Your task to perform on an android device: change notification settings in the gmail app Image 0: 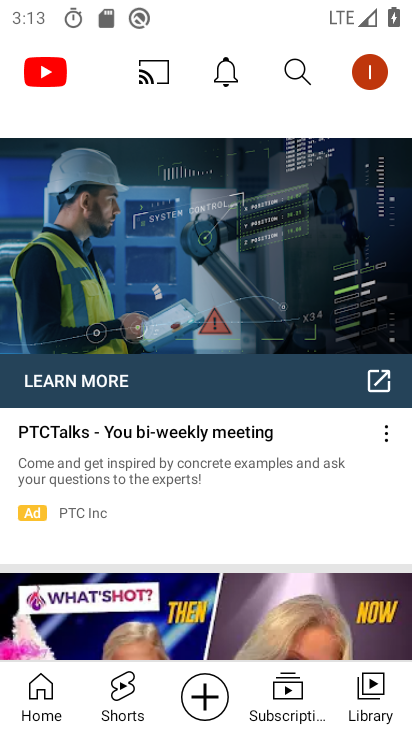
Step 0: press home button
Your task to perform on an android device: change notification settings in the gmail app Image 1: 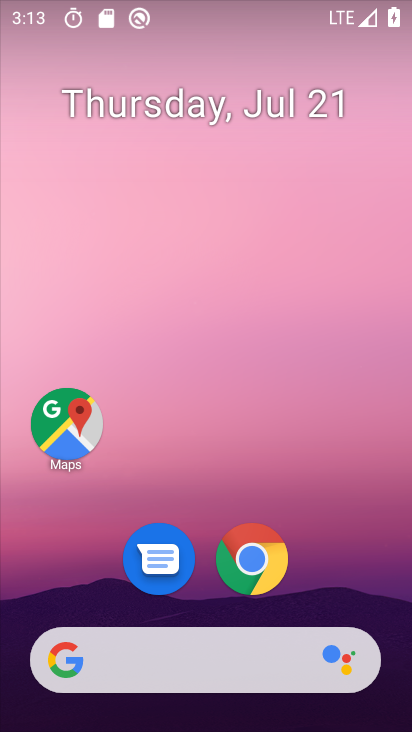
Step 1: drag from (370, 583) to (378, 66)
Your task to perform on an android device: change notification settings in the gmail app Image 2: 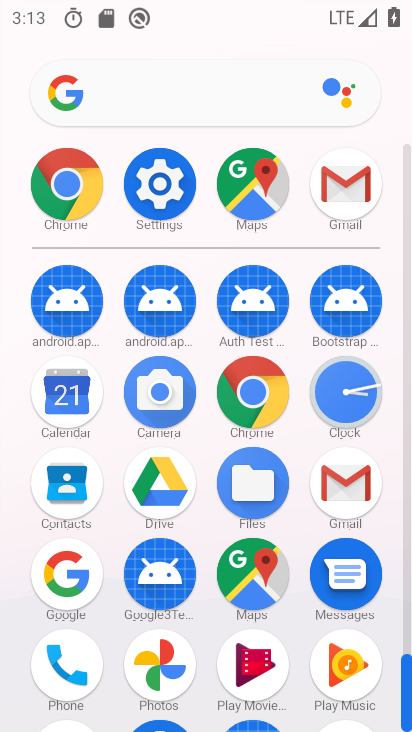
Step 2: click (354, 197)
Your task to perform on an android device: change notification settings in the gmail app Image 3: 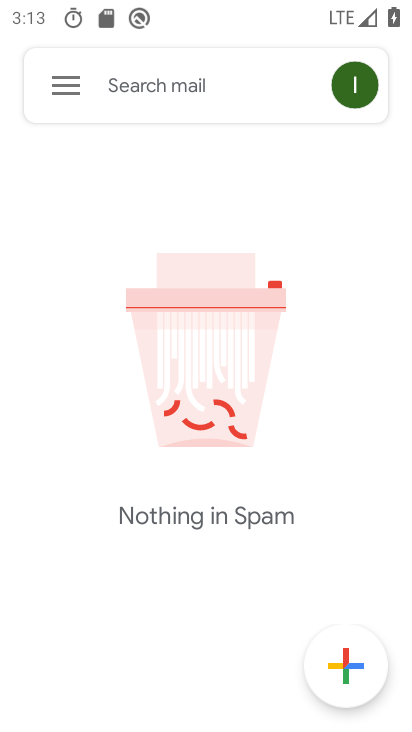
Step 3: click (64, 84)
Your task to perform on an android device: change notification settings in the gmail app Image 4: 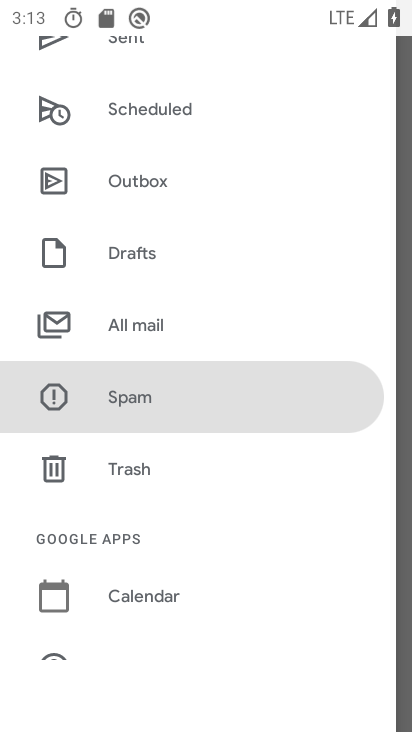
Step 4: drag from (330, 225) to (330, 405)
Your task to perform on an android device: change notification settings in the gmail app Image 5: 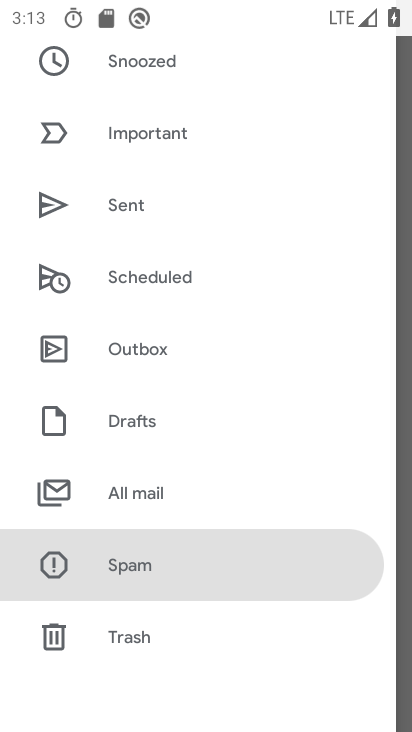
Step 5: drag from (318, 226) to (329, 467)
Your task to perform on an android device: change notification settings in the gmail app Image 6: 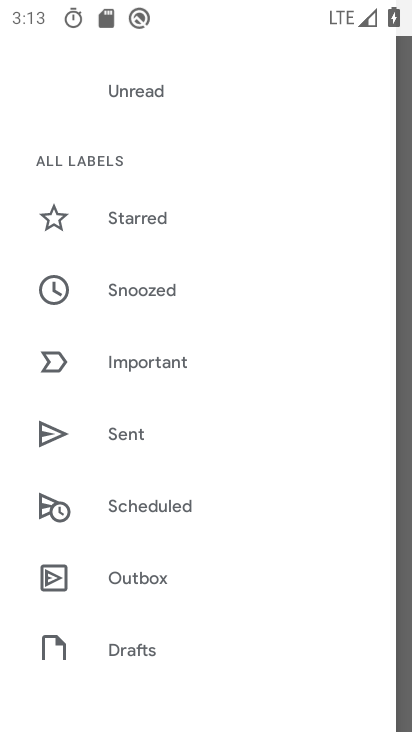
Step 6: drag from (314, 543) to (315, 412)
Your task to perform on an android device: change notification settings in the gmail app Image 7: 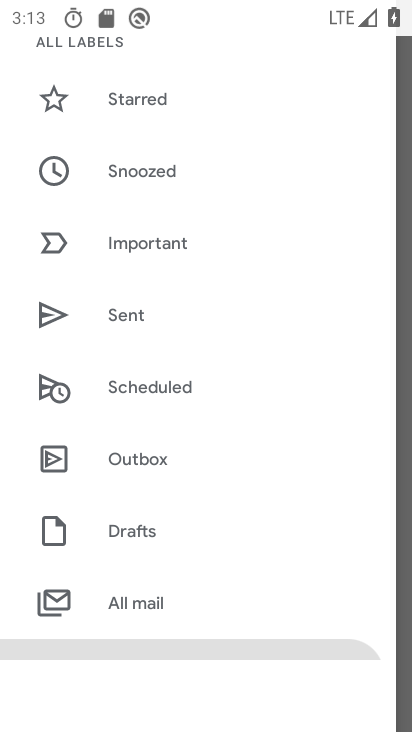
Step 7: drag from (321, 523) to (322, 390)
Your task to perform on an android device: change notification settings in the gmail app Image 8: 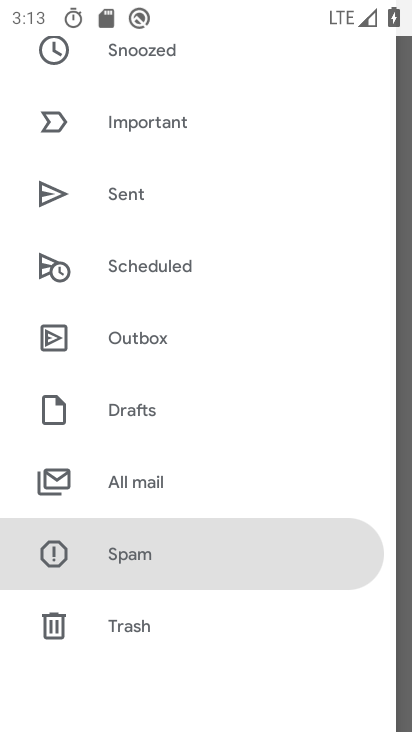
Step 8: drag from (314, 565) to (312, 426)
Your task to perform on an android device: change notification settings in the gmail app Image 9: 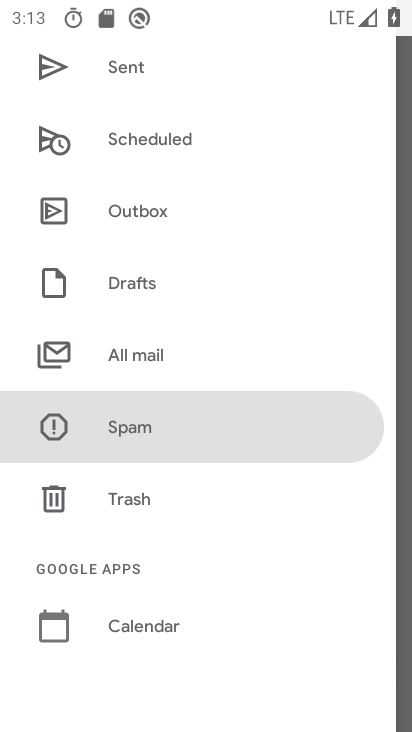
Step 9: drag from (303, 535) to (304, 417)
Your task to perform on an android device: change notification settings in the gmail app Image 10: 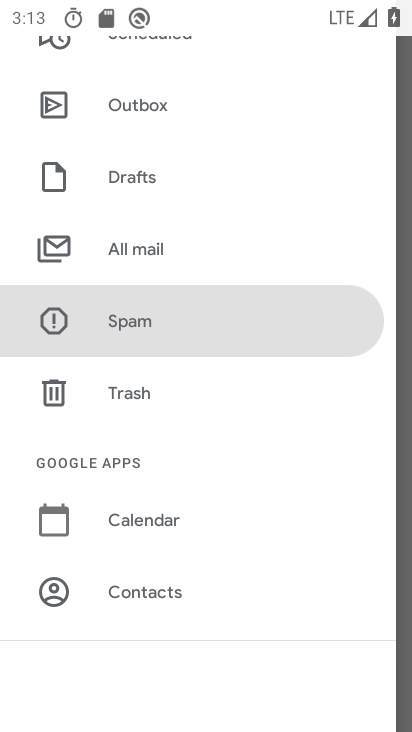
Step 10: drag from (295, 532) to (295, 432)
Your task to perform on an android device: change notification settings in the gmail app Image 11: 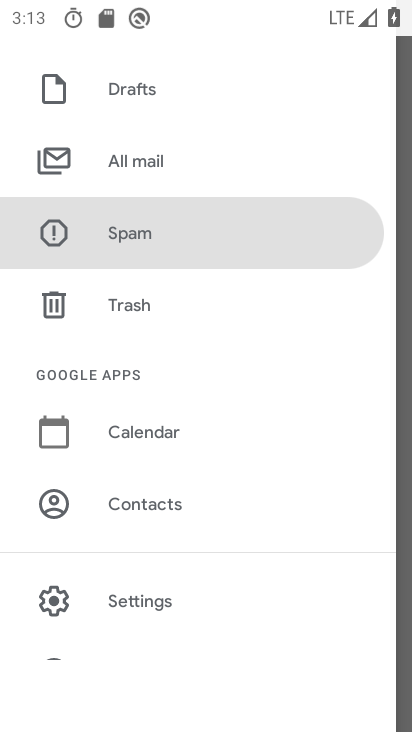
Step 11: click (285, 590)
Your task to perform on an android device: change notification settings in the gmail app Image 12: 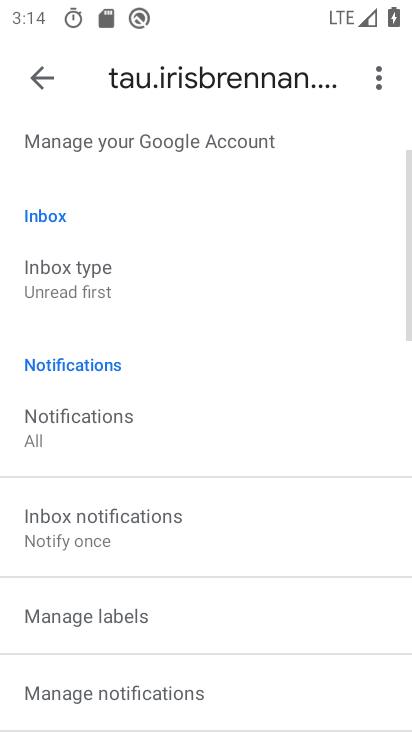
Step 12: drag from (280, 300) to (280, 221)
Your task to perform on an android device: change notification settings in the gmail app Image 13: 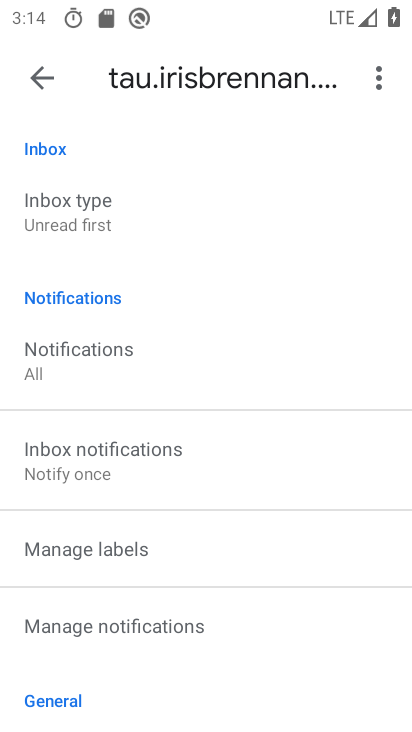
Step 13: drag from (270, 324) to (277, 250)
Your task to perform on an android device: change notification settings in the gmail app Image 14: 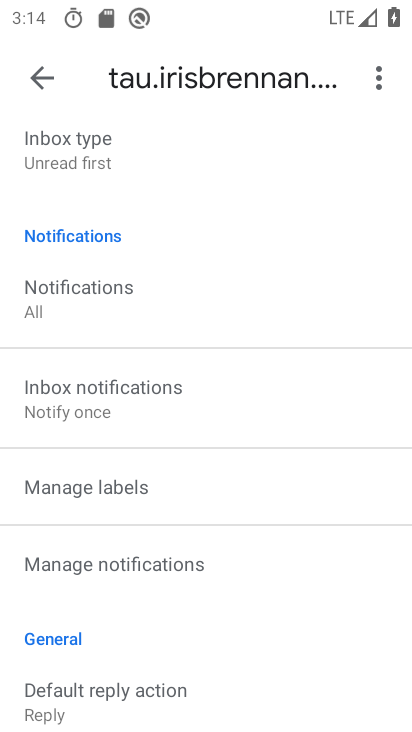
Step 14: drag from (265, 349) to (271, 270)
Your task to perform on an android device: change notification settings in the gmail app Image 15: 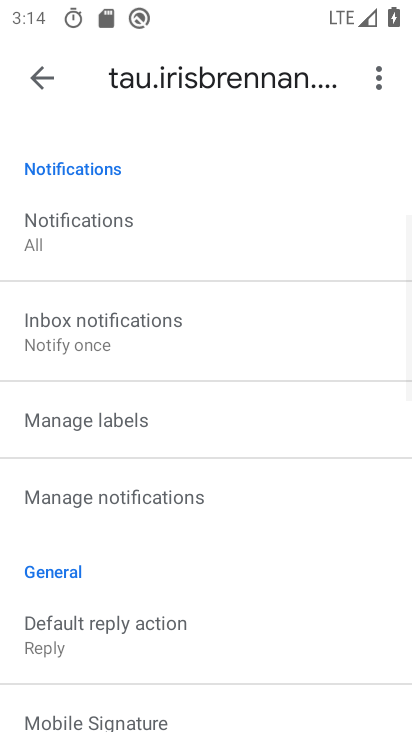
Step 15: click (258, 254)
Your task to perform on an android device: change notification settings in the gmail app Image 16: 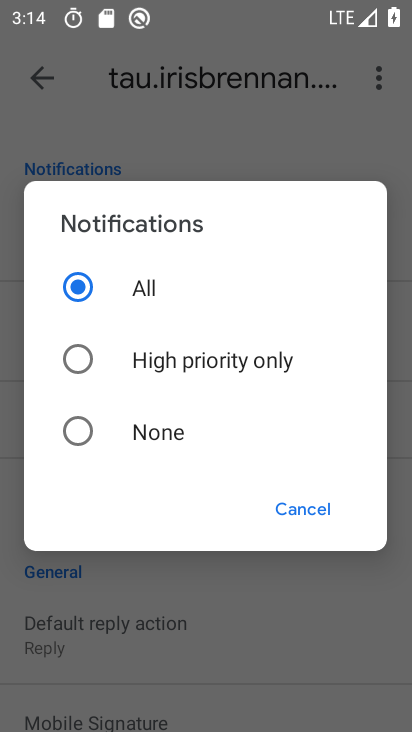
Step 16: click (273, 358)
Your task to perform on an android device: change notification settings in the gmail app Image 17: 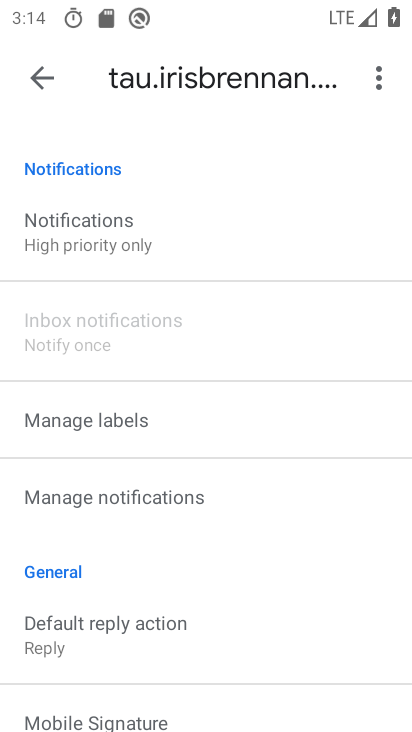
Step 17: task complete